Your task to perform on an android device: Open calendar and show me the fourth week of next month Image 0: 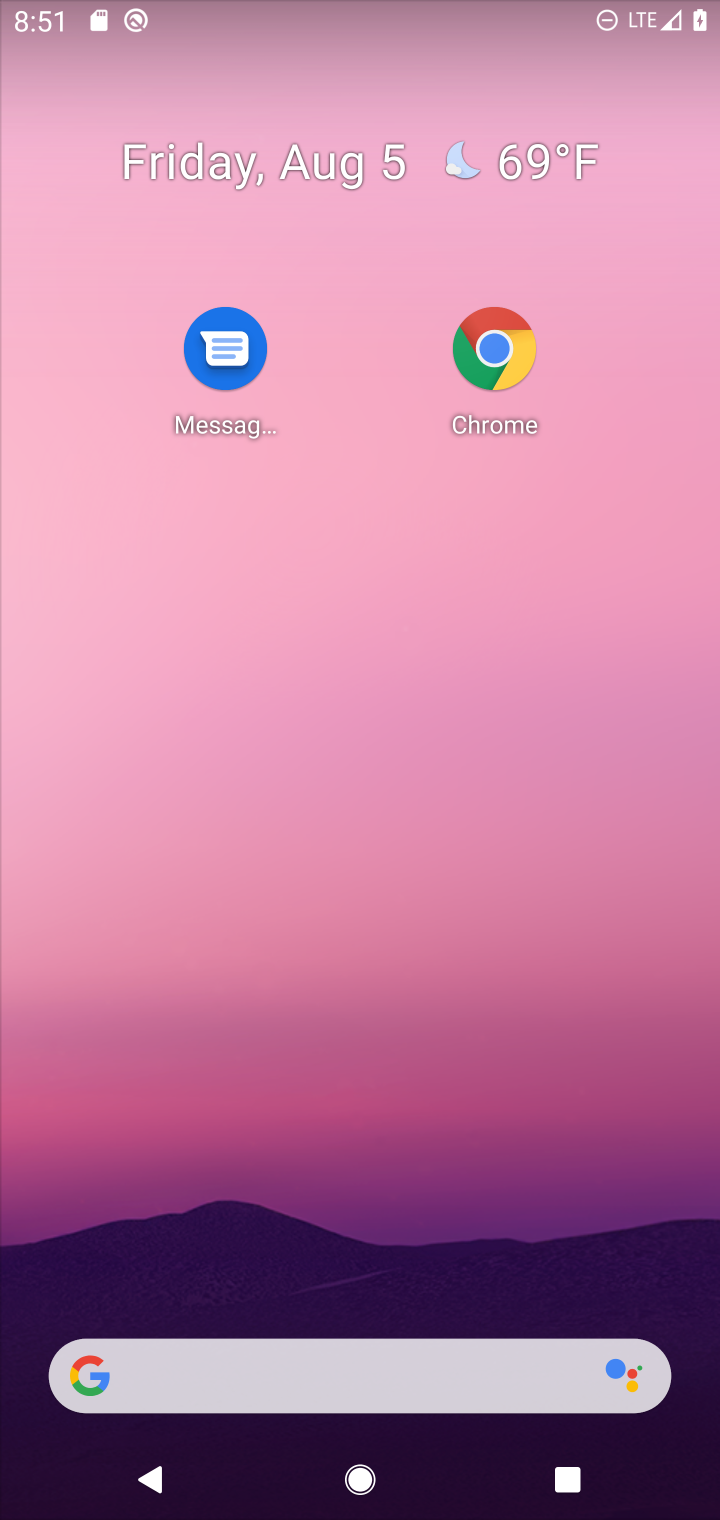
Step 0: drag from (455, 1411) to (473, 701)
Your task to perform on an android device: Open calendar and show me the fourth week of next month Image 1: 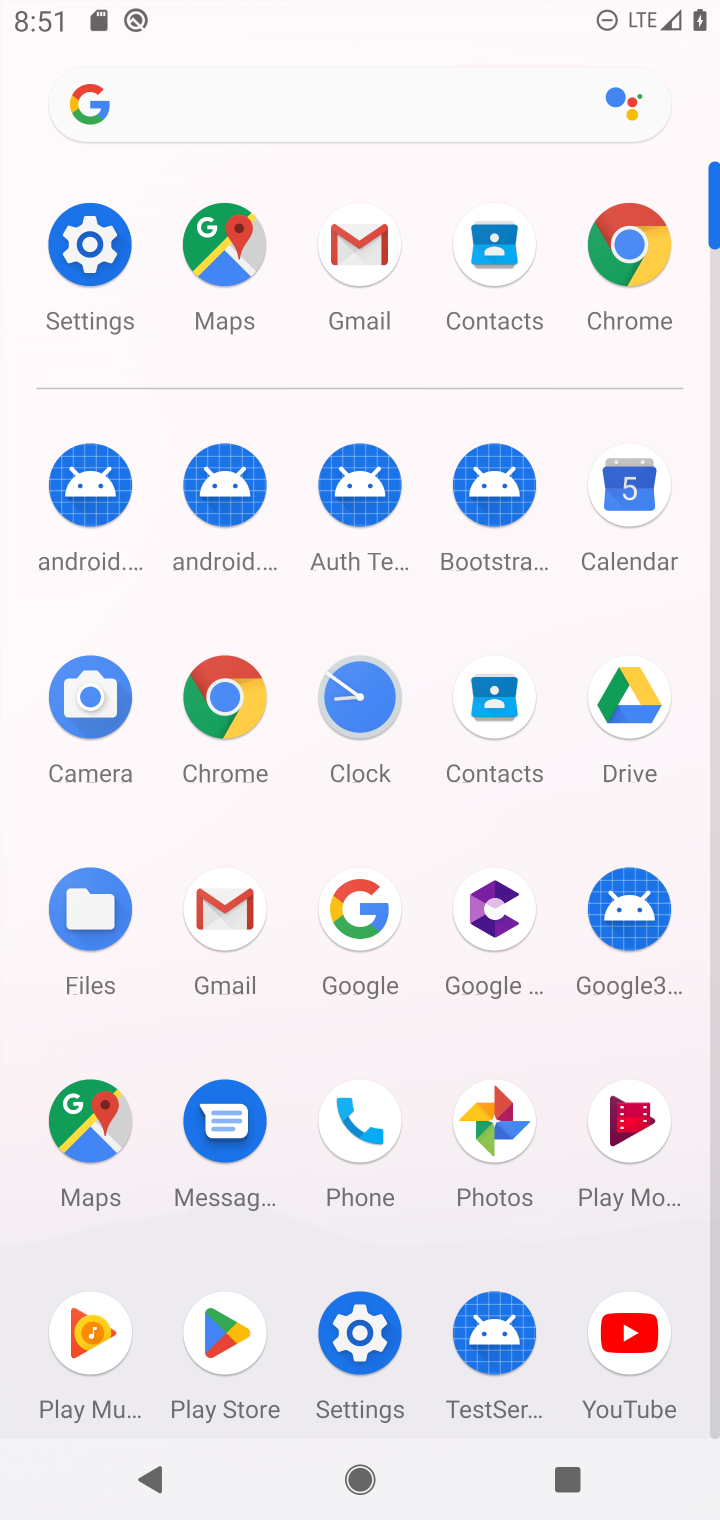
Step 1: click (618, 501)
Your task to perform on an android device: Open calendar and show me the fourth week of next month Image 2: 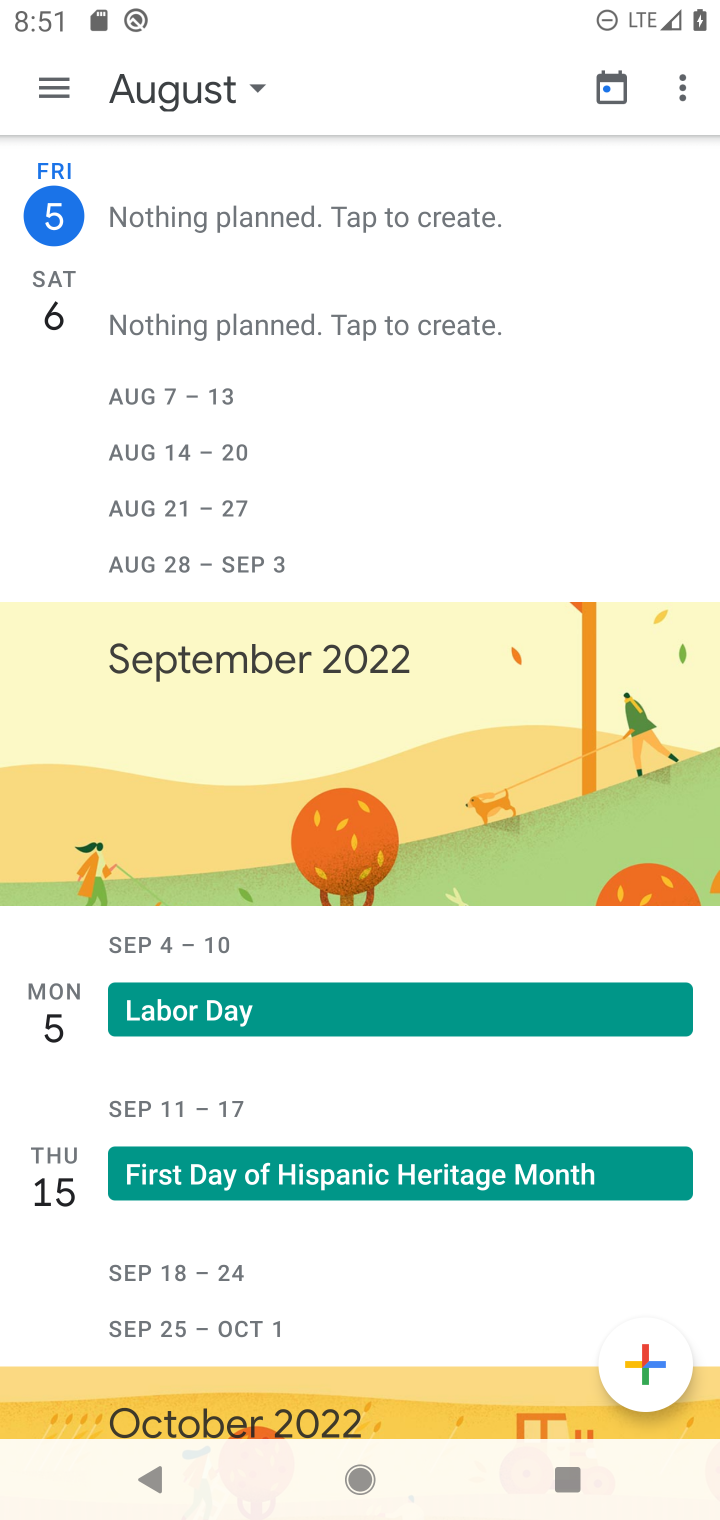
Step 2: click (41, 103)
Your task to perform on an android device: Open calendar and show me the fourth week of next month Image 3: 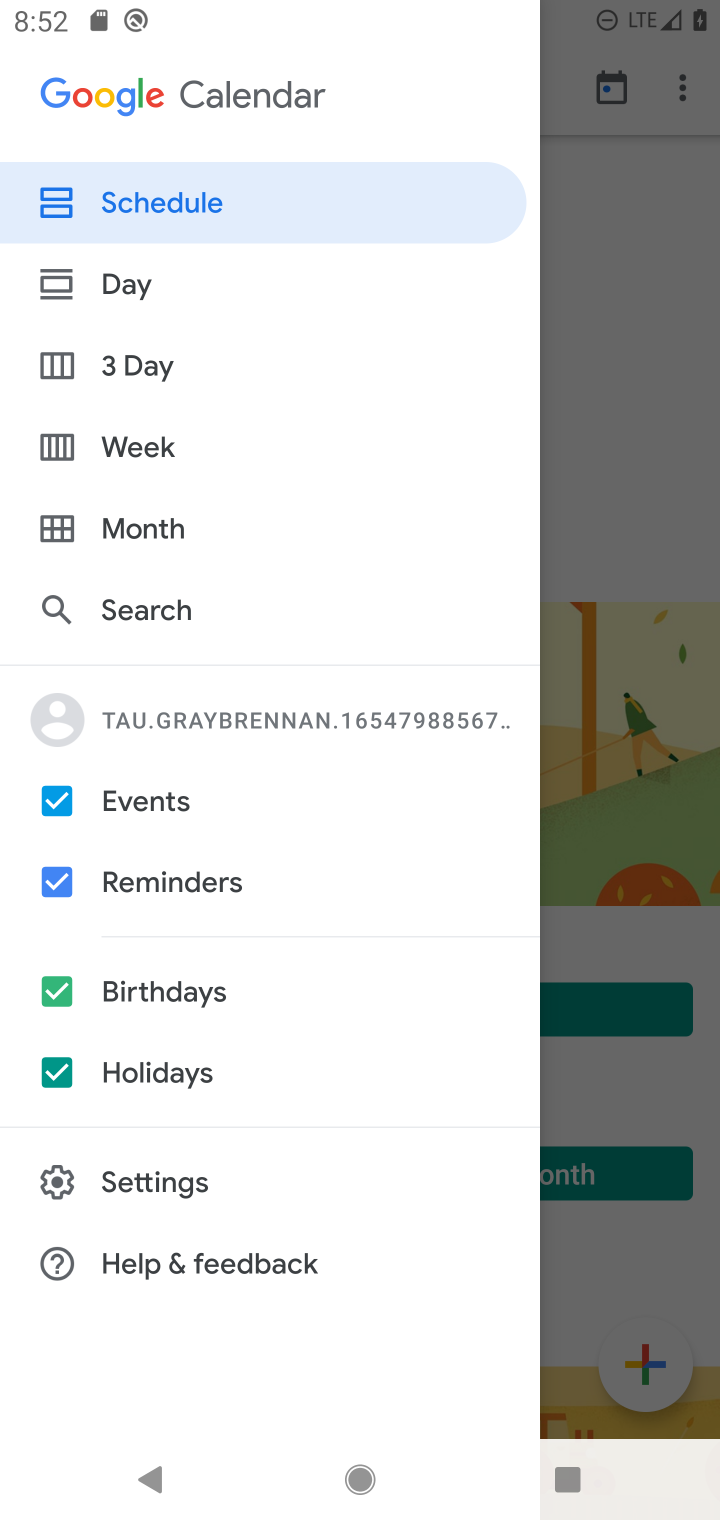
Step 3: click (157, 525)
Your task to perform on an android device: Open calendar and show me the fourth week of next month Image 4: 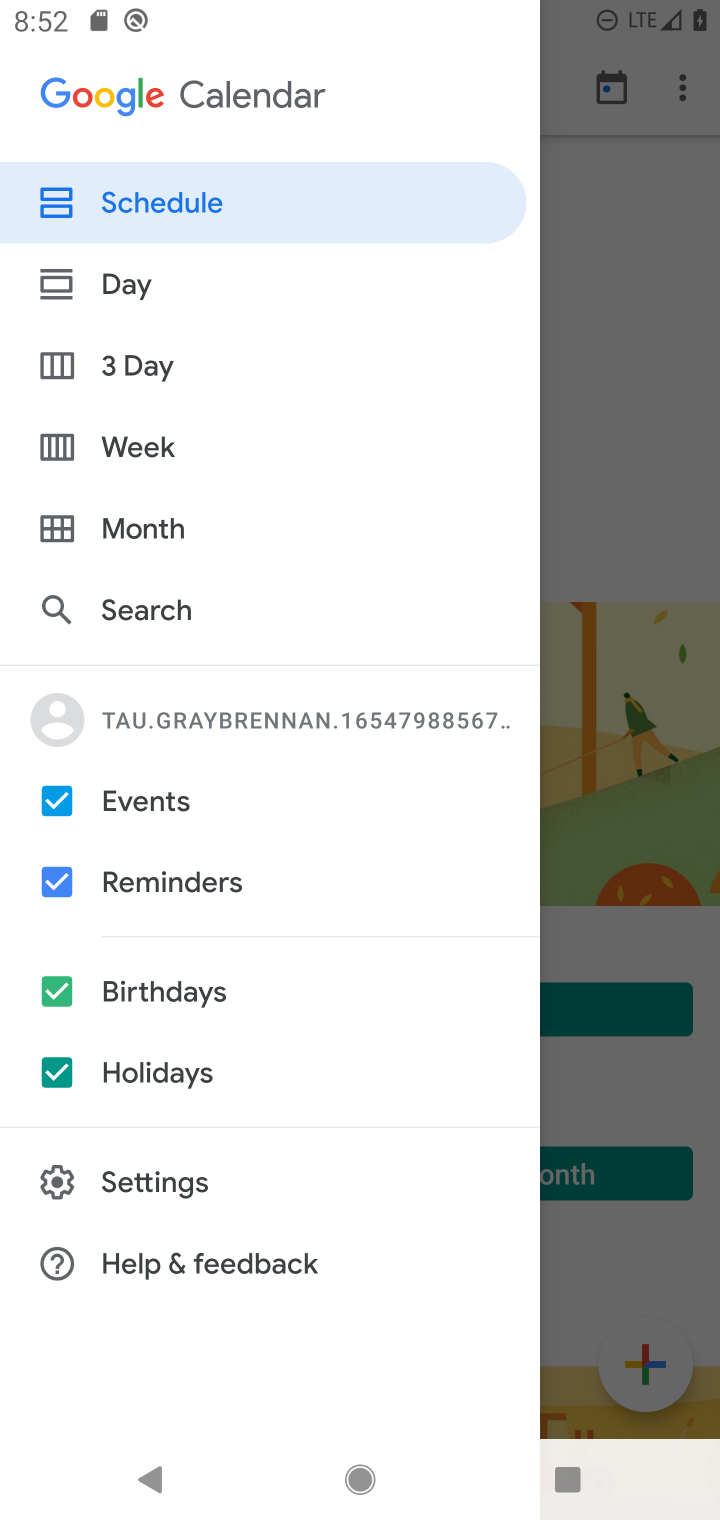
Step 4: click (148, 539)
Your task to perform on an android device: Open calendar and show me the fourth week of next month Image 5: 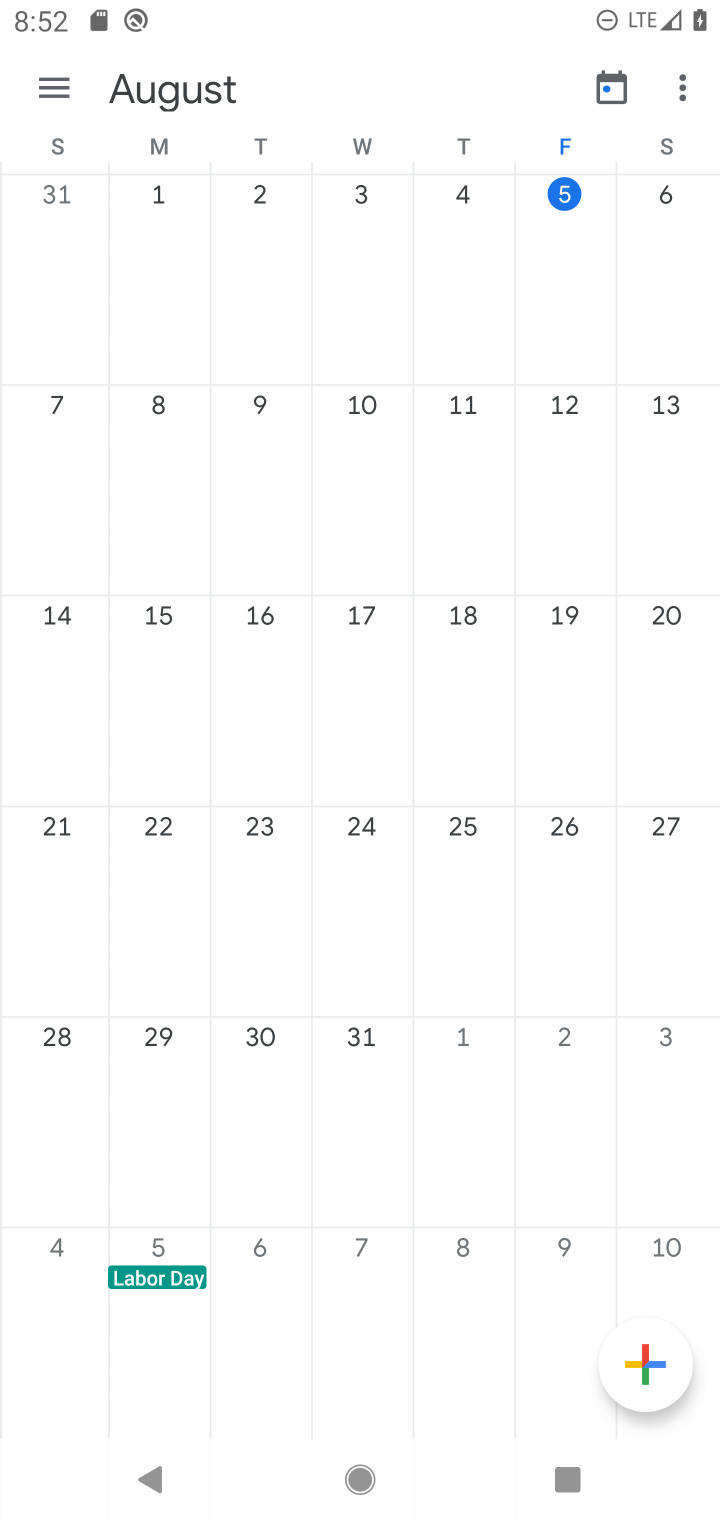
Step 5: drag from (685, 777) to (3, 597)
Your task to perform on an android device: Open calendar and show me the fourth week of next month Image 6: 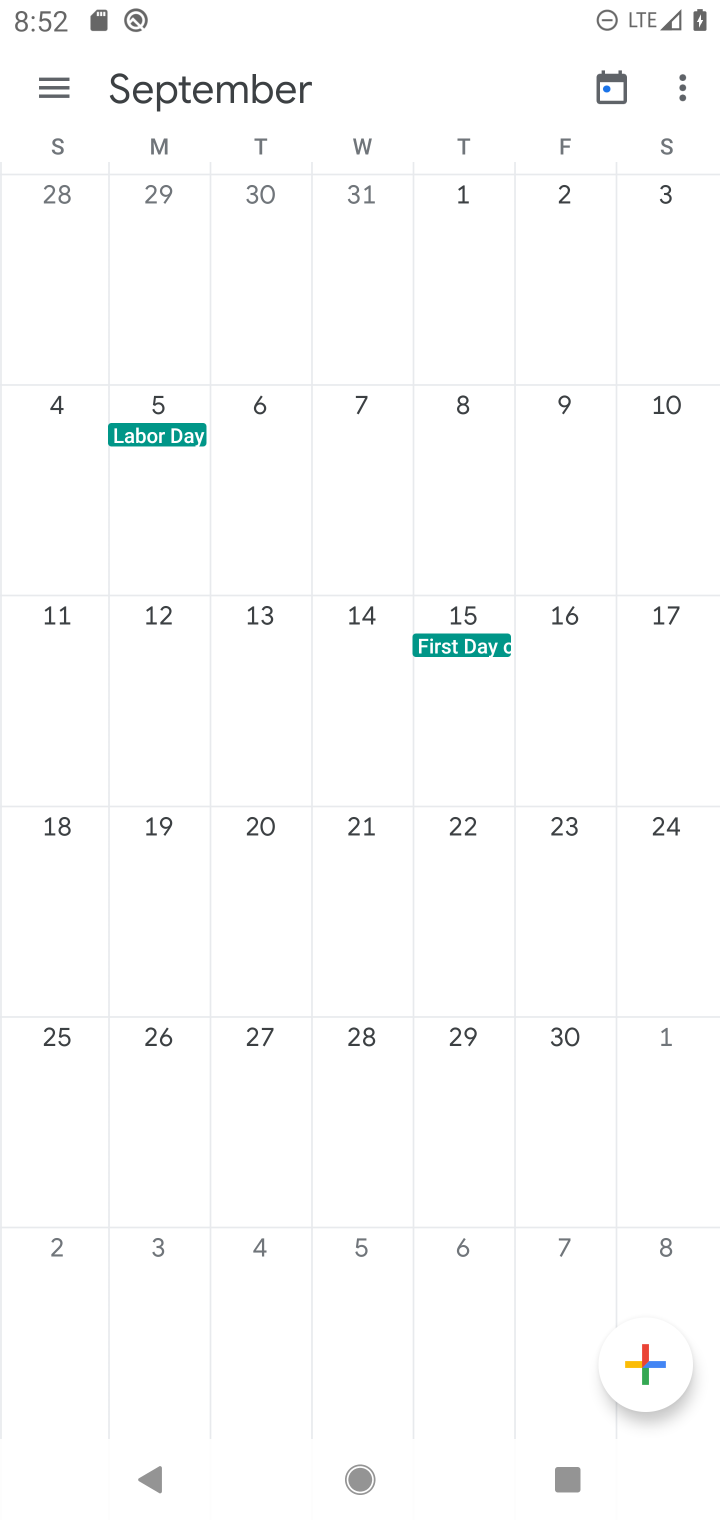
Step 6: click (178, 1094)
Your task to perform on an android device: Open calendar and show me the fourth week of next month Image 7: 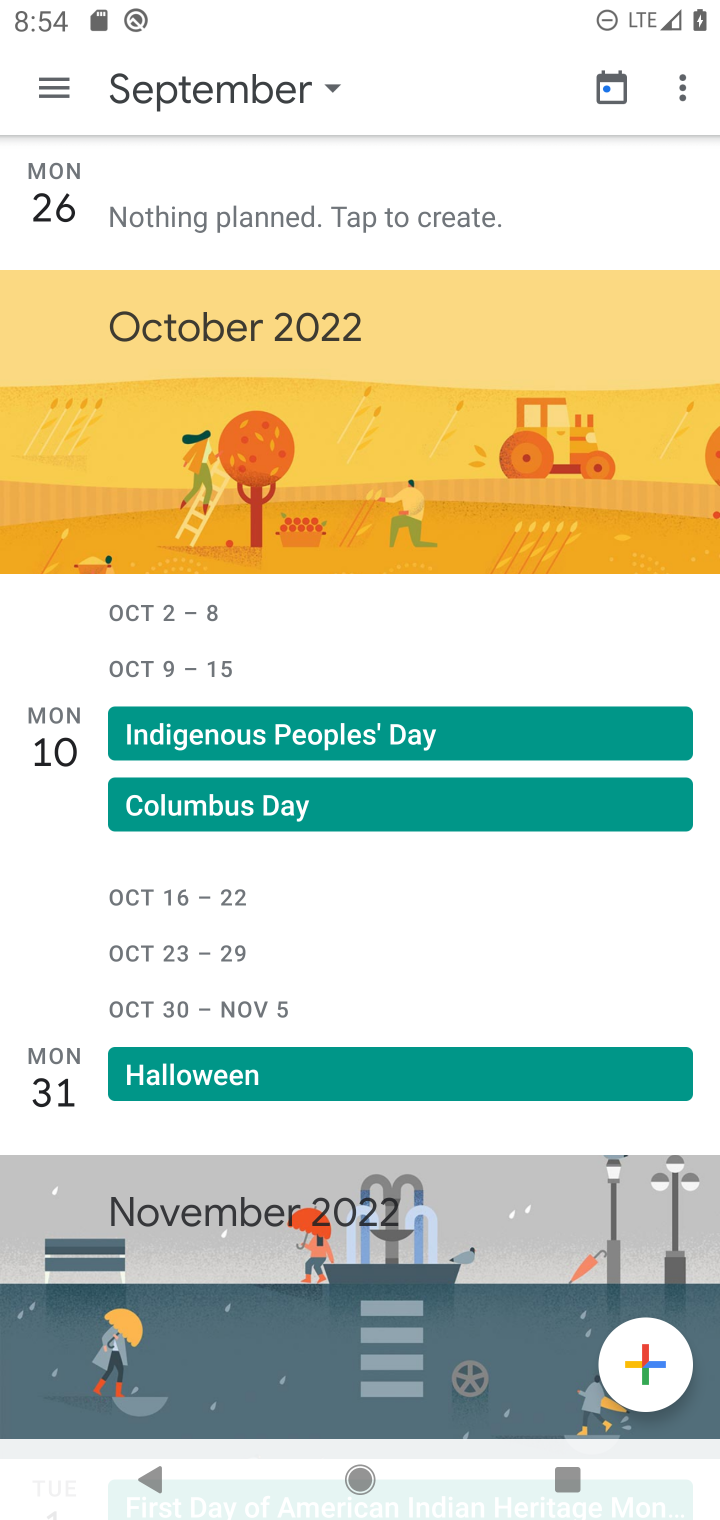
Step 7: task complete